Your task to perform on an android device: Open Reddit.com Image 0: 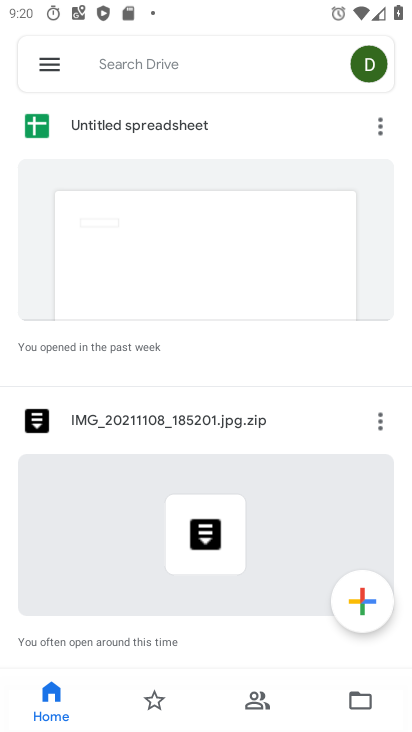
Step 0: press home button
Your task to perform on an android device: Open Reddit.com Image 1: 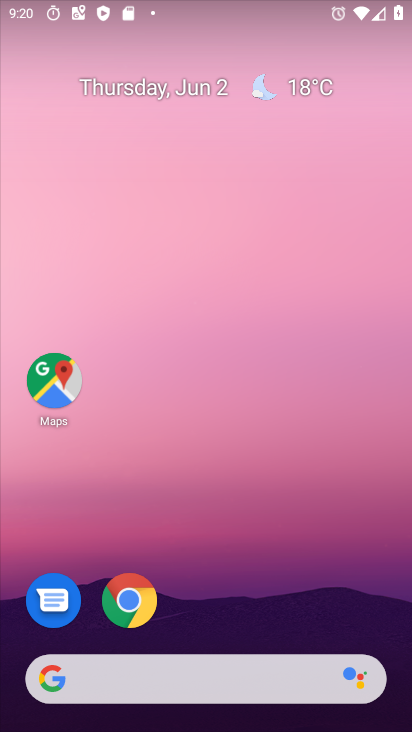
Step 1: drag from (351, 561) to (353, 153)
Your task to perform on an android device: Open Reddit.com Image 2: 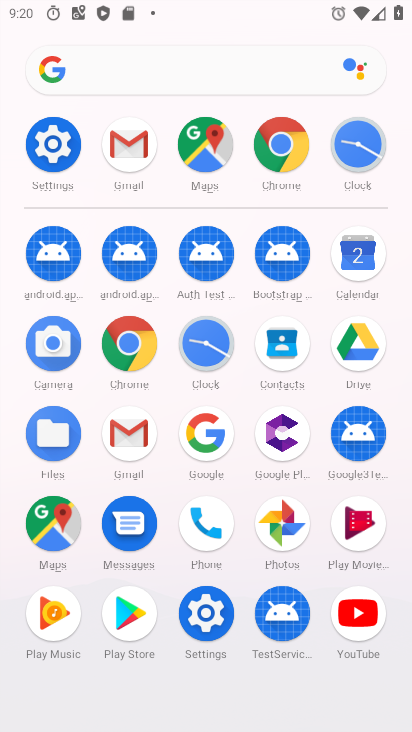
Step 2: click (139, 348)
Your task to perform on an android device: Open Reddit.com Image 3: 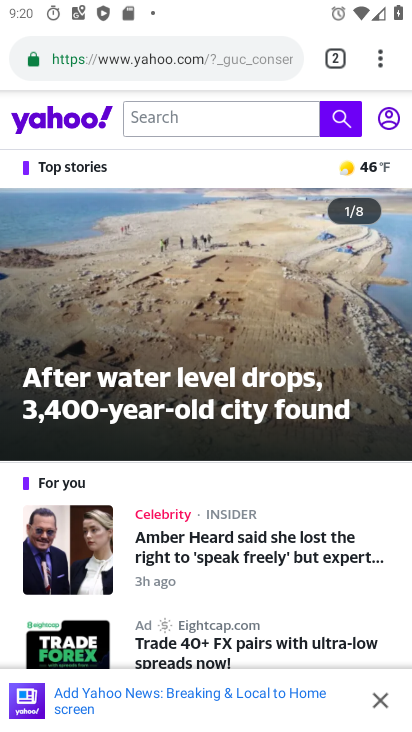
Step 3: click (212, 65)
Your task to perform on an android device: Open Reddit.com Image 4: 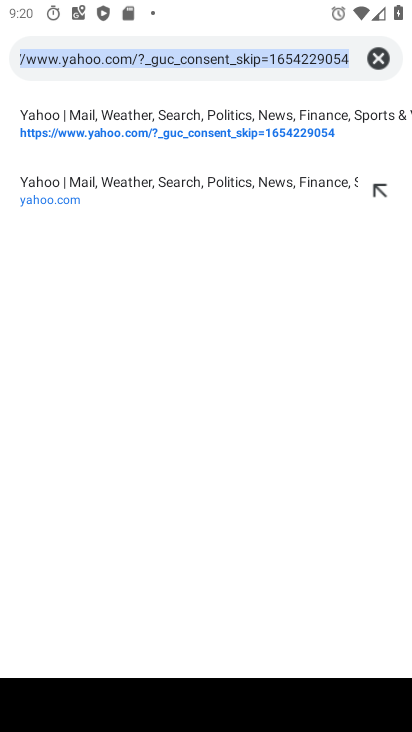
Step 4: click (384, 46)
Your task to perform on an android device: Open Reddit.com Image 5: 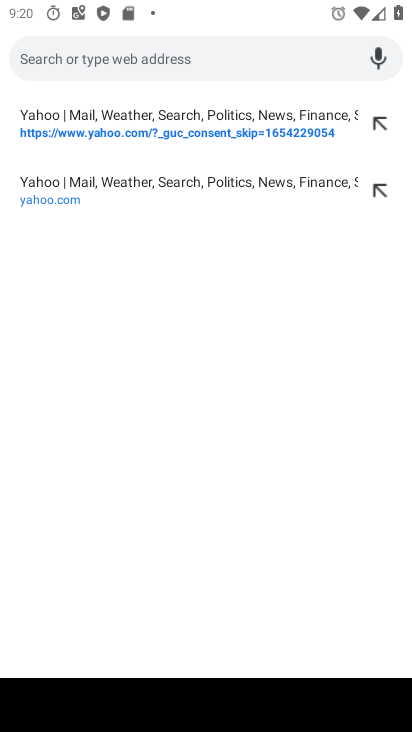
Step 5: type "reddit.com"
Your task to perform on an android device: Open Reddit.com Image 6: 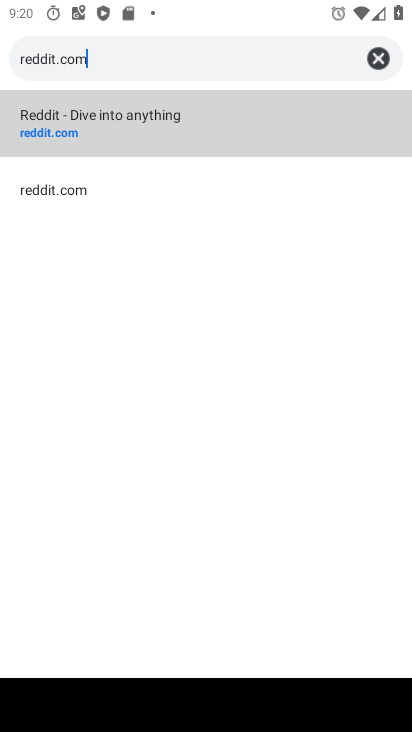
Step 6: click (107, 187)
Your task to perform on an android device: Open Reddit.com Image 7: 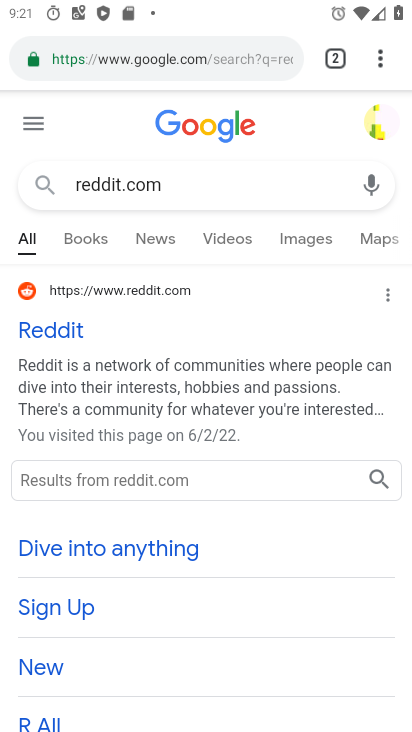
Step 7: task complete